Your task to perform on an android device: Play the last video I watched on Youtube Image 0: 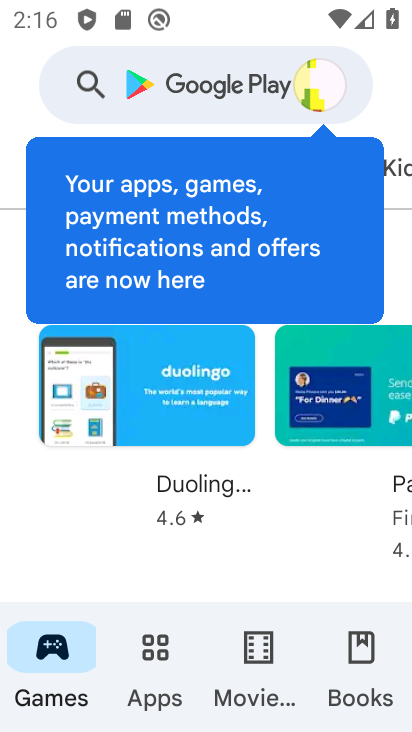
Step 0: press home button
Your task to perform on an android device: Play the last video I watched on Youtube Image 1: 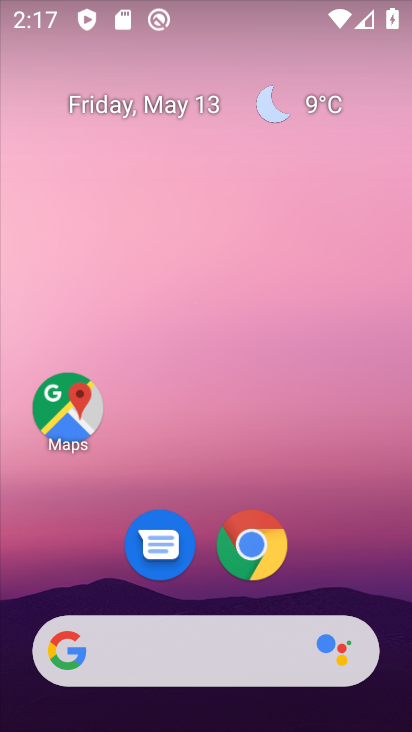
Step 1: drag from (334, 542) to (308, 99)
Your task to perform on an android device: Play the last video I watched on Youtube Image 2: 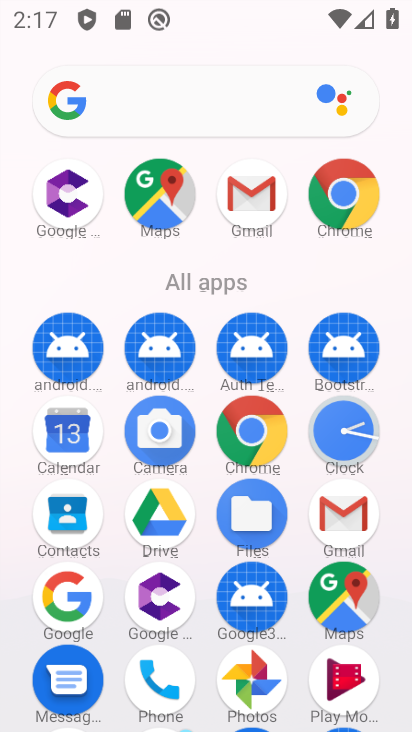
Step 2: drag from (306, 292) to (302, 106)
Your task to perform on an android device: Play the last video I watched on Youtube Image 3: 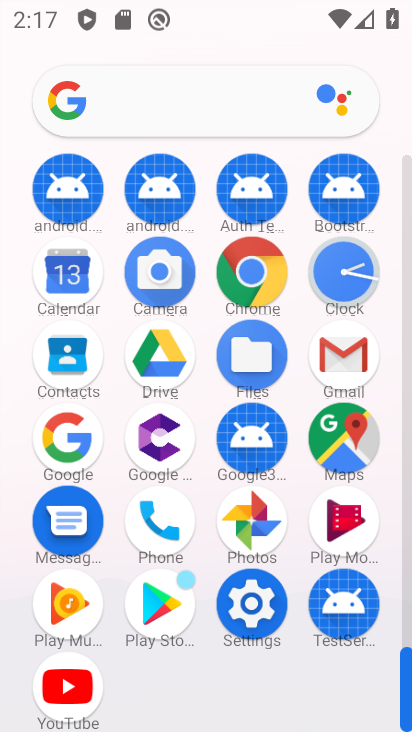
Step 3: click (72, 682)
Your task to perform on an android device: Play the last video I watched on Youtube Image 4: 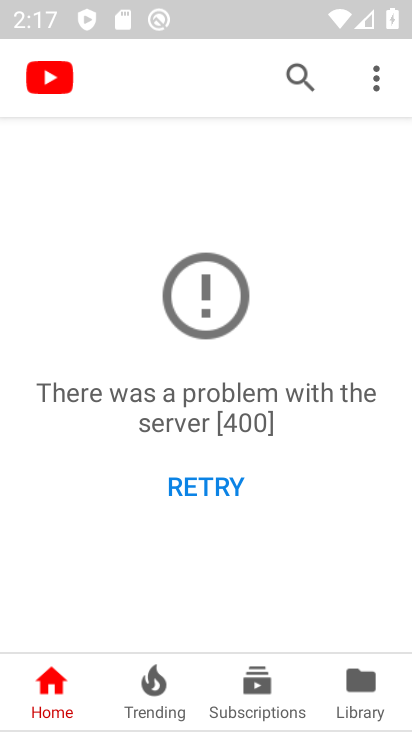
Step 4: drag from (380, 74) to (382, 130)
Your task to perform on an android device: Play the last video I watched on Youtube Image 5: 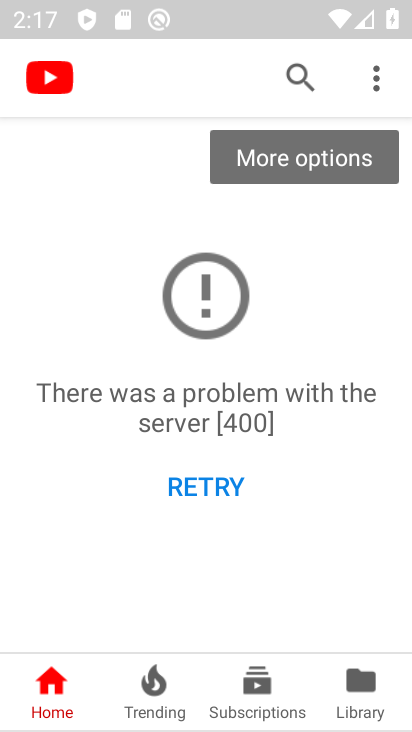
Step 5: click (349, 693)
Your task to perform on an android device: Play the last video I watched on Youtube Image 6: 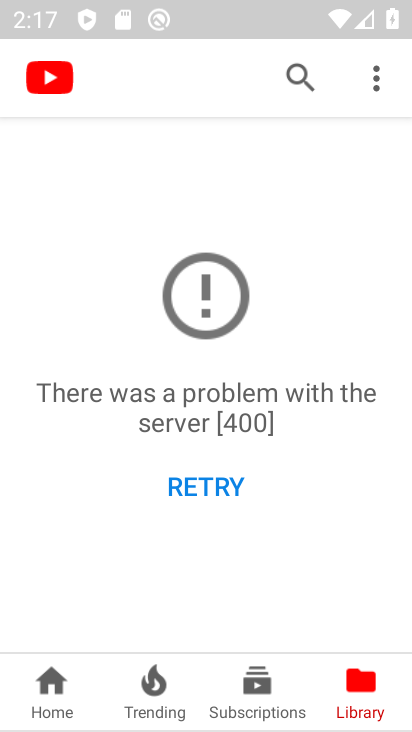
Step 6: click (372, 684)
Your task to perform on an android device: Play the last video I watched on Youtube Image 7: 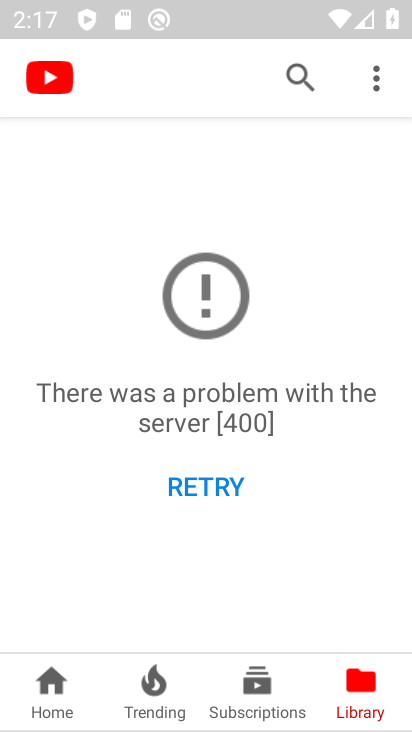
Step 7: task complete